Your task to perform on an android device: toggle location history Image 0: 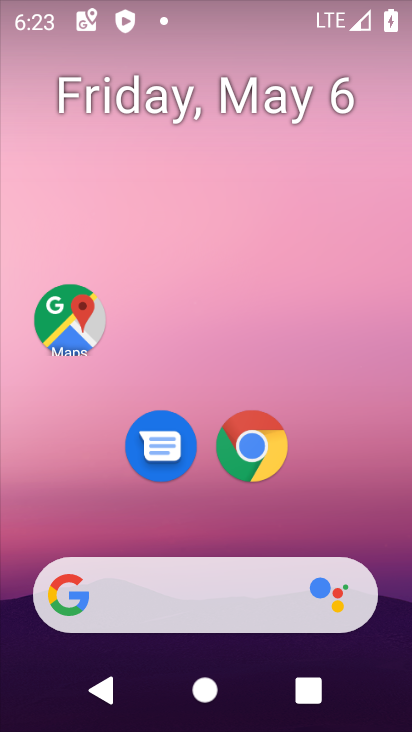
Step 0: drag from (328, 511) to (255, 118)
Your task to perform on an android device: toggle location history Image 1: 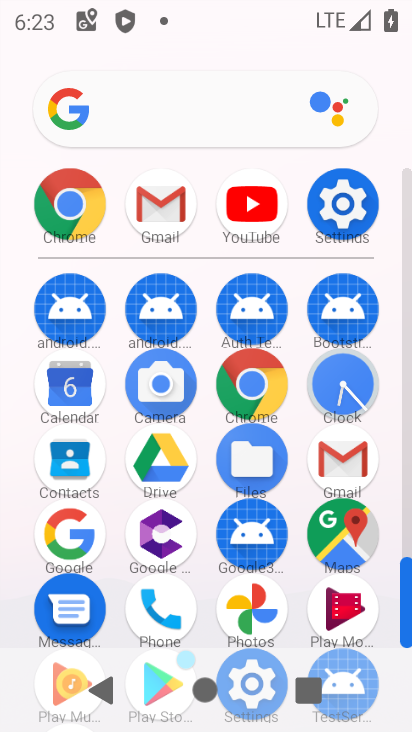
Step 1: click (373, 215)
Your task to perform on an android device: toggle location history Image 2: 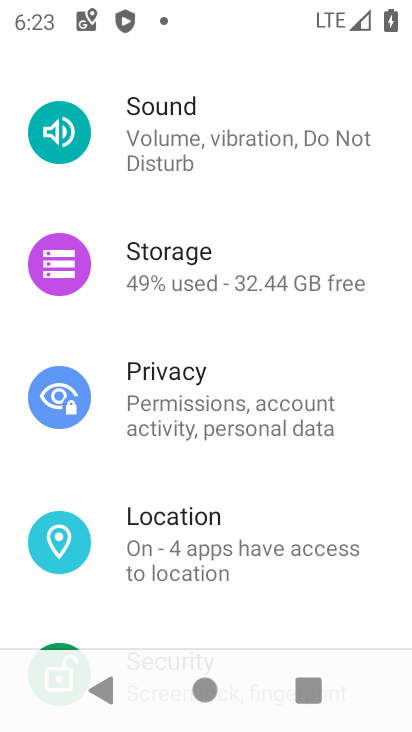
Step 2: click (172, 537)
Your task to perform on an android device: toggle location history Image 3: 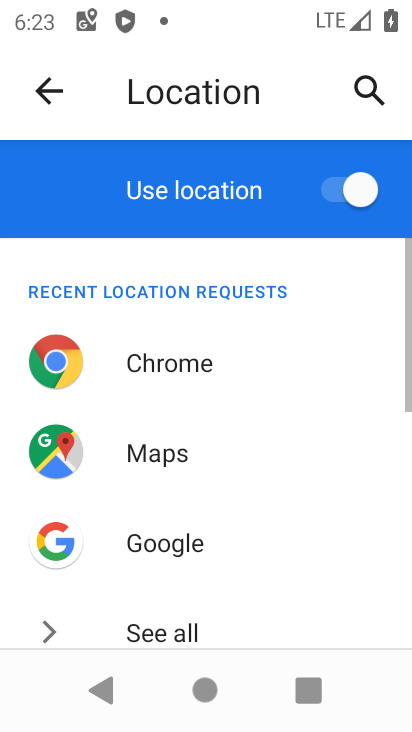
Step 3: drag from (222, 614) to (230, 213)
Your task to perform on an android device: toggle location history Image 4: 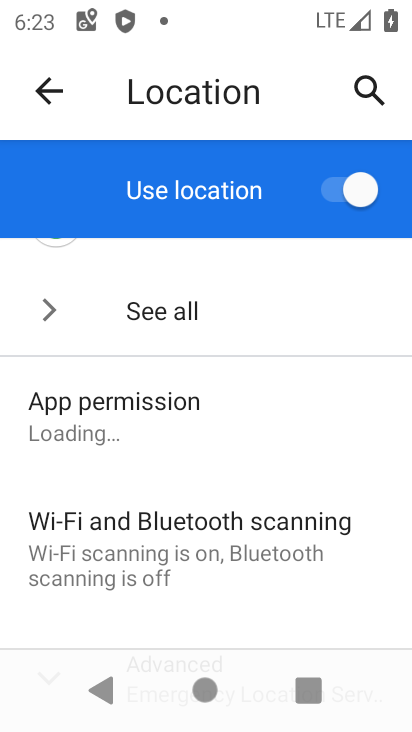
Step 4: drag from (236, 551) to (208, 232)
Your task to perform on an android device: toggle location history Image 5: 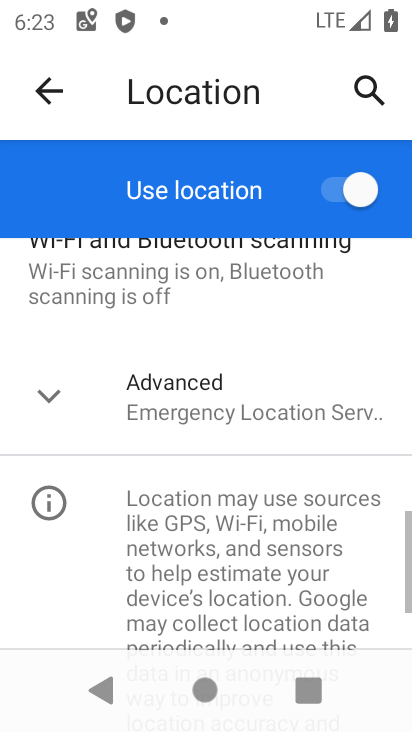
Step 5: click (119, 406)
Your task to perform on an android device: toggle location history Image 6: 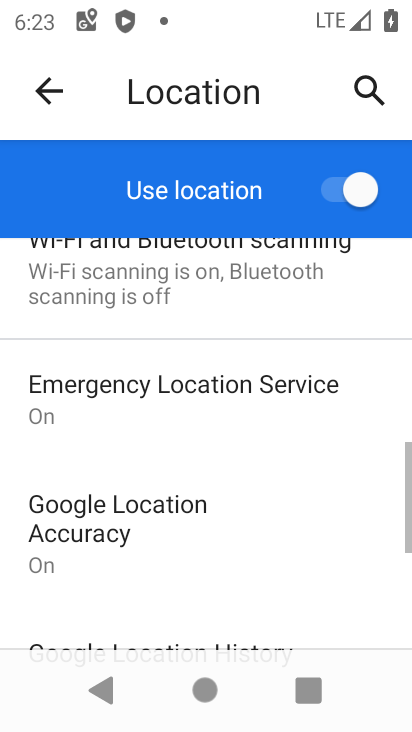
Step 6: drag from (200, 583) to (211, 281)
Your task to perform on an android device: toggle location history Image 7: 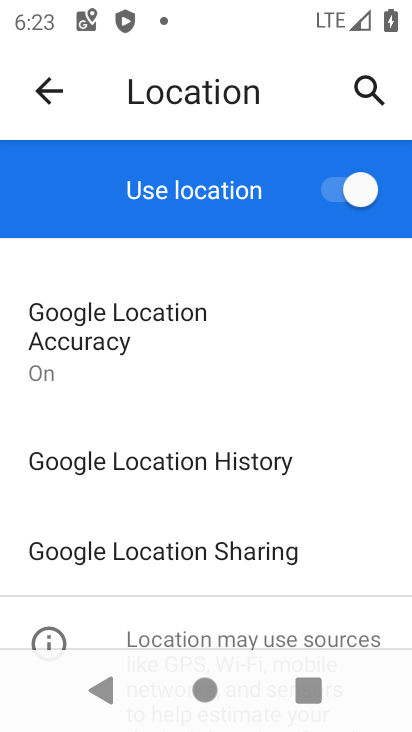
Step 7: click (167, 466)
Your task to perform on an android device: toggle location history Image 8: 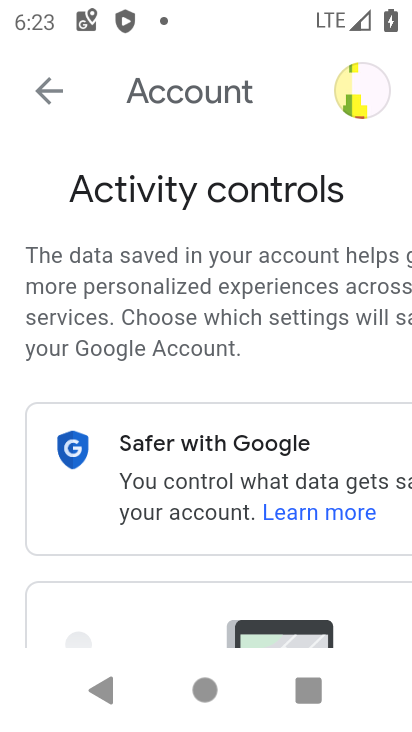
Step 8: drag from (303, 542) to (284, 279)
Your task to perform on an android device: toggle location history Image 9: 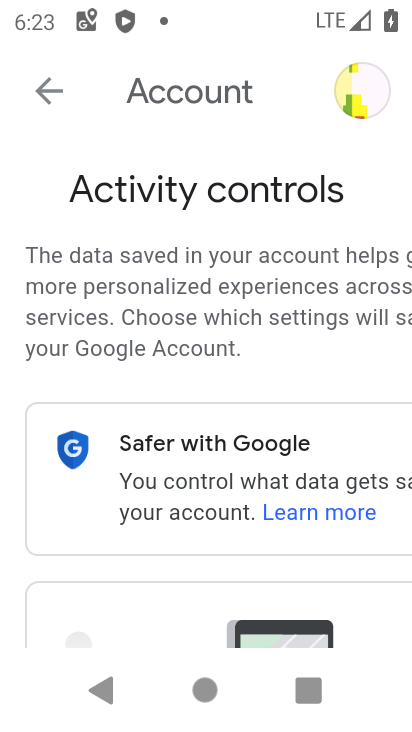
Step 9: drag from (173, 573) to (179, 241)
Your task to perform on an android device: toggle location history Image 10: 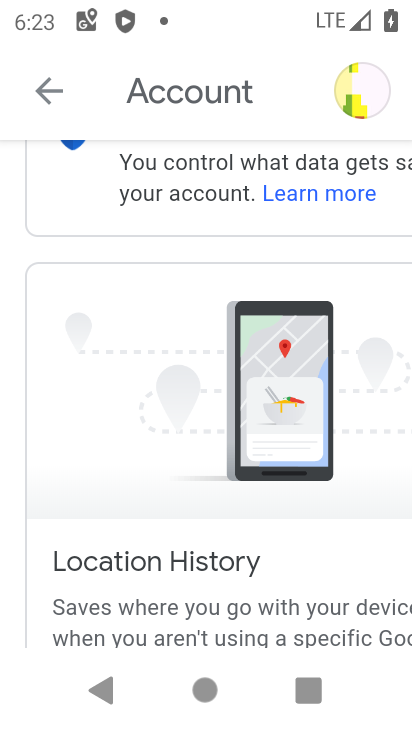
Step 10: drag from (168, 622) to (205, 301)
Your task to perform on an android device: toggle location history Image 11: 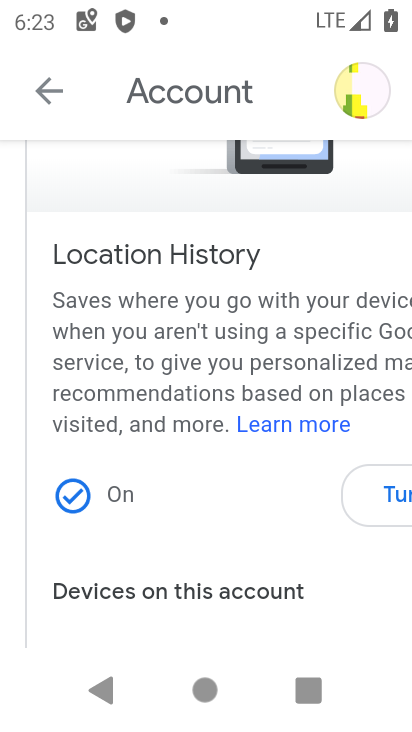
Step 11: click (372, 505)
Your task to perform on an android device: toggle location history Image 12: 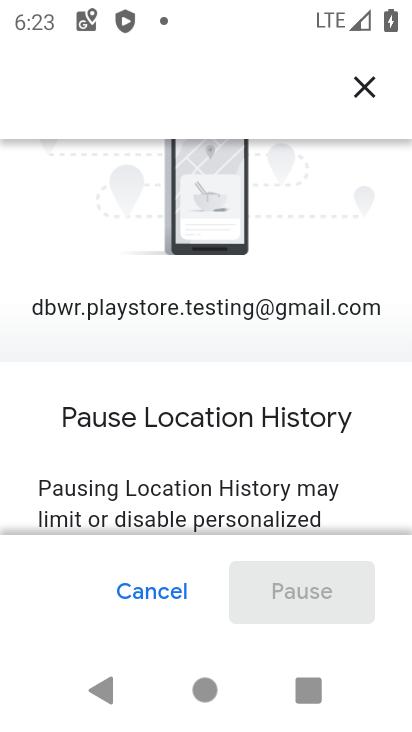
Step 12: drag from (275, 504) to (291, 184)
Your task to perform on an android device: toggle location history Image 13: 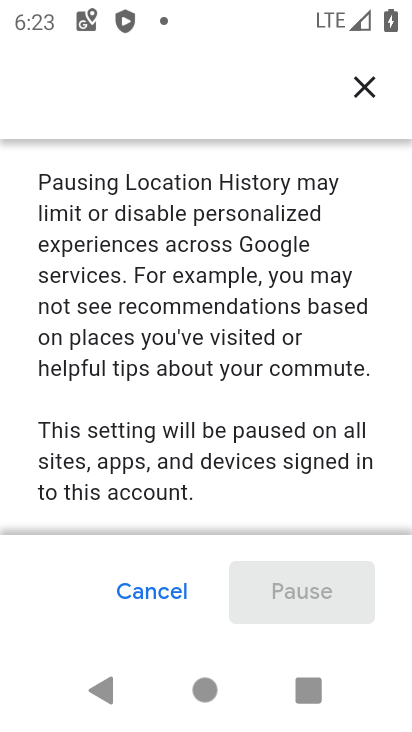
Step 13: drag from (257, 454) to (239, 113)
Your task to perform on an android device: toggle location history Image 14: 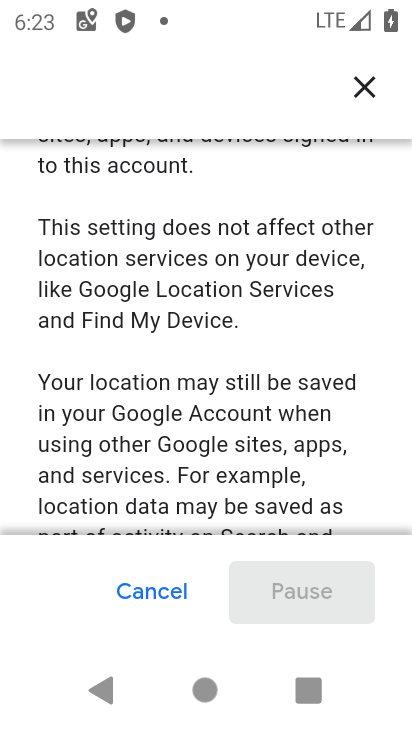
Step 14: drag from (277, 492) to (268, 237)
Your task to perform on an android device: toggle location history Image 15: 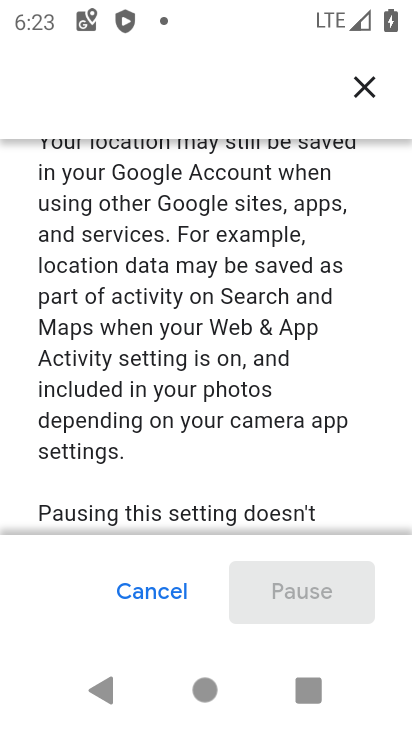
Step 15: drag from (252, 413) to (272, 173)
Your task to perform on an android device: toggle location history Image 16: 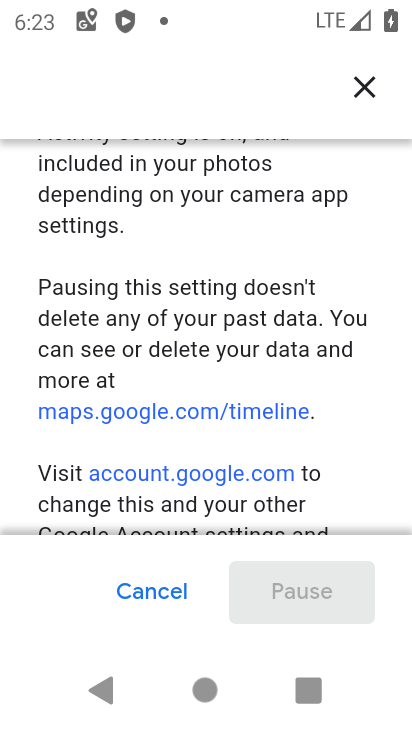
Step 16: drag from (301, 498) to (337, 198)
Your task to perform on an android device: toggle location history Image 17: 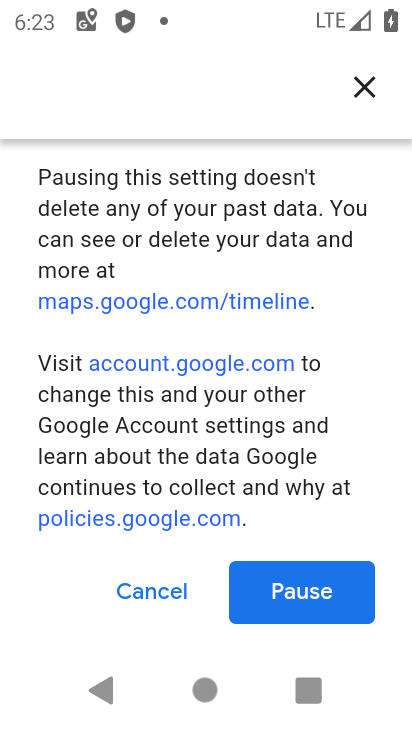
Step 17: click (292, 599)
Your task to perform on an android device: toggle location history Image 18: 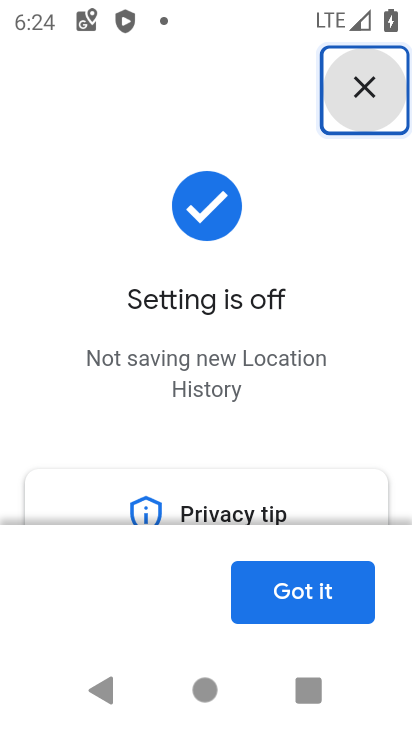
Step 18: click (293, 596)
Your task to perform on an android device: toggle location history Image 19: 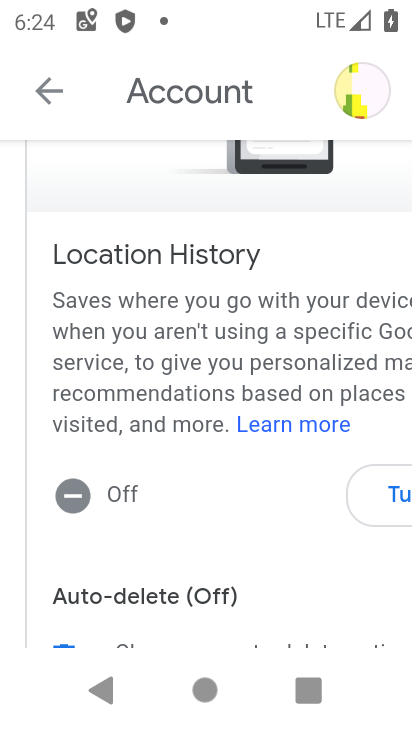
Step 19: task complete